Your task to perform on an android device: Open calendar and show me the third week of next month Image 0: 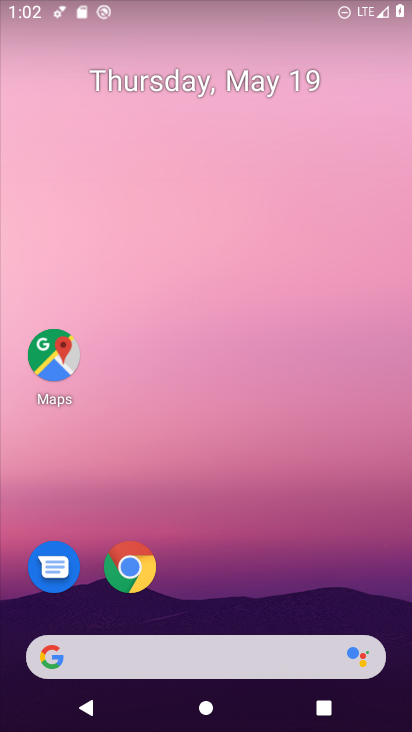
Step 0: drag from (282, 581) to (268, 103)
Your task to perform on an android device: Open calendar and show me the third week of next month Image 1: 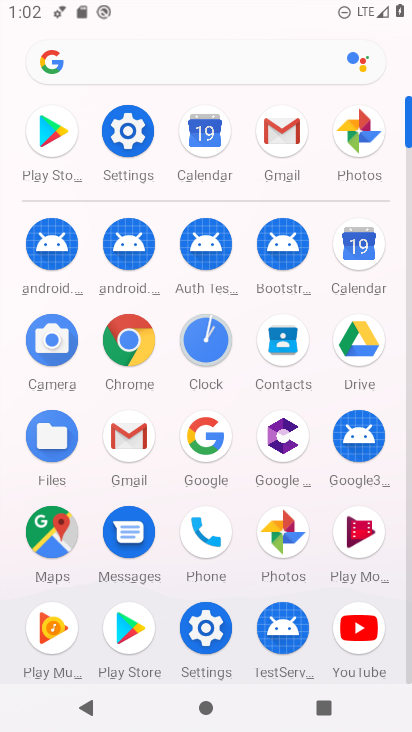
Step 1: click (202, 127)
Your task to perform on an android device: Open calendar and show me the third week of next month Image 2: 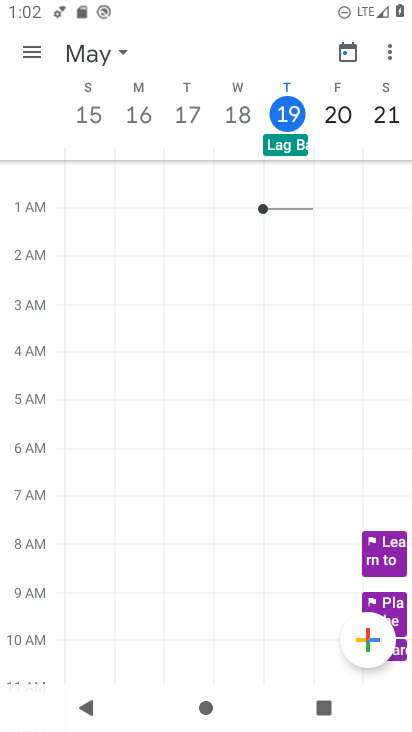
Step 2: task complete